Your task to perform on an android device: turn pop-ups on in chrome Image 0: 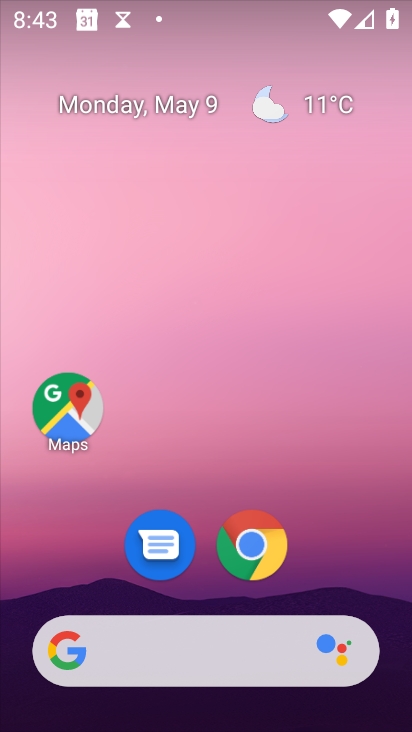
Step 0: click (259, 541)
Your task to perform on an android device: turn pop-ups on in chrome Image 1: 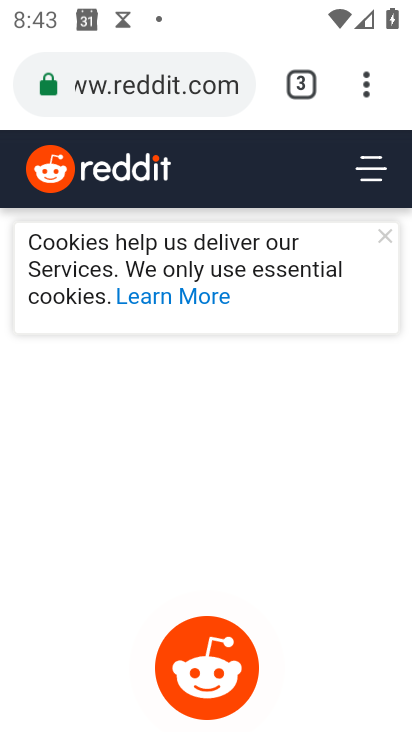
Step 1: click (365, 92)
Your task to perform on an android device: turn pop-ups on in chrome Image 2: 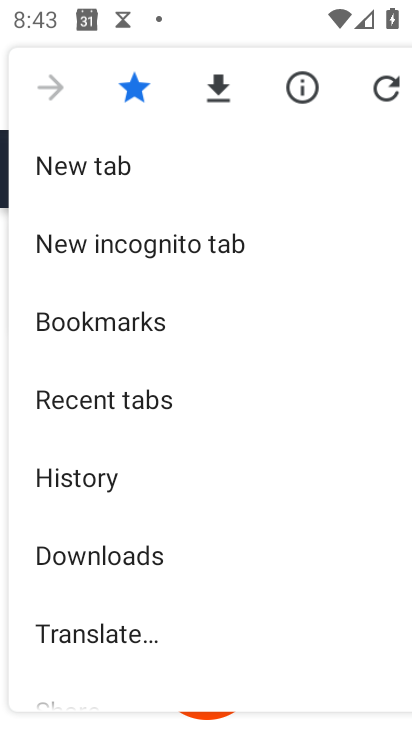
Step 2: drag from (187, 641) to (224, 260)
Your task to perform on an android device: turn pop-ups on in chrome Image 3: 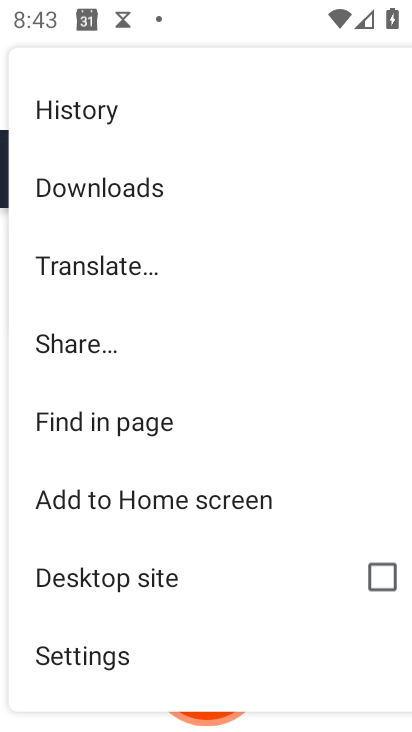
Step 3: click (122, 653)
Your task to perform on an android device: turn pop-ups on in chrome Image 4: 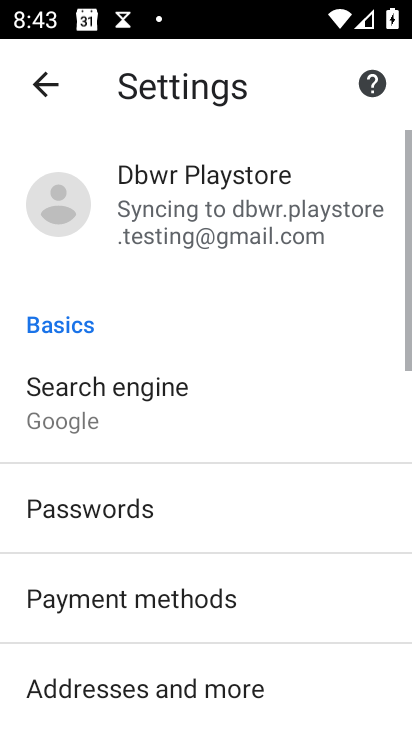
Step 4: drag from (164, 661) to (185, 397)
Your task to perform on an android device: turn pop-ups on in chrome Image 5: 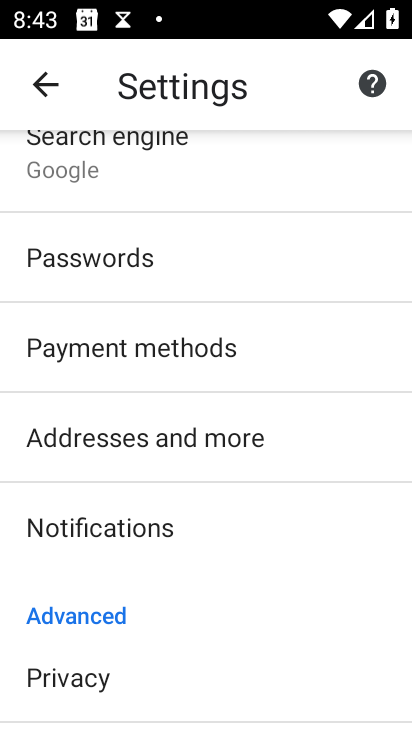
Step 5: drag from (163, 650) to (209, 334)
Your task to perform on an android device: turn pop-ups on in chrome Image 6: 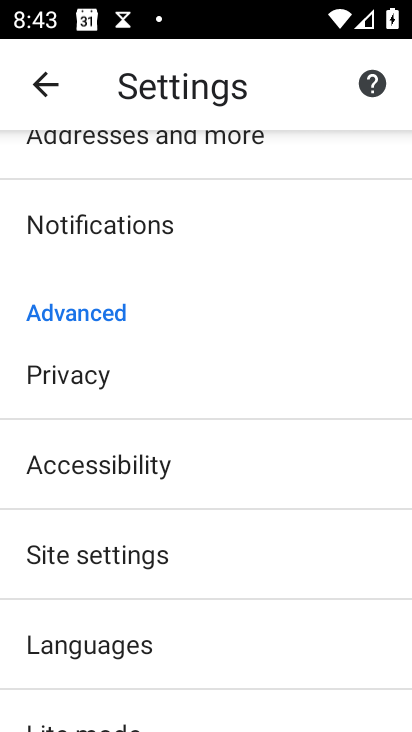
Step 6: click (104, 554)
Your task to perform on an android device: turn pop-ups on in chrome Image 7: 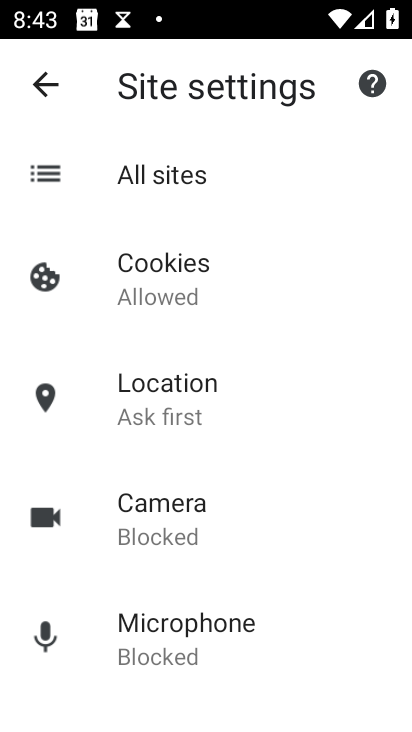
Step 7: drag from (237, 647) to (245, 304)
Your task to perform on an android device: turn pop-ups on in chrome Image 8: 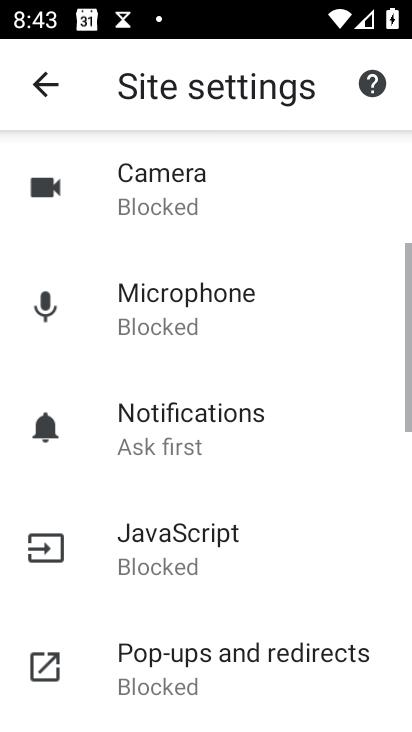
Step 8: click (188, 649)
Your task to perform on an android device: turn pop-ups on in chrome Image 9: 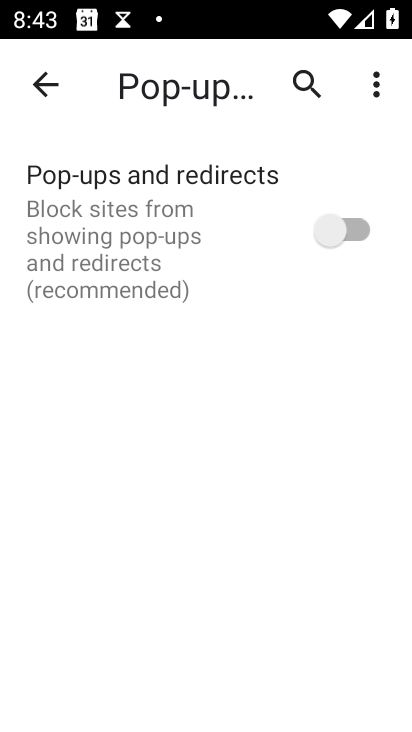
Step 9: click (353, 222)
Your task to perform on an android device: turn pop-ups on in chrome Image 10: 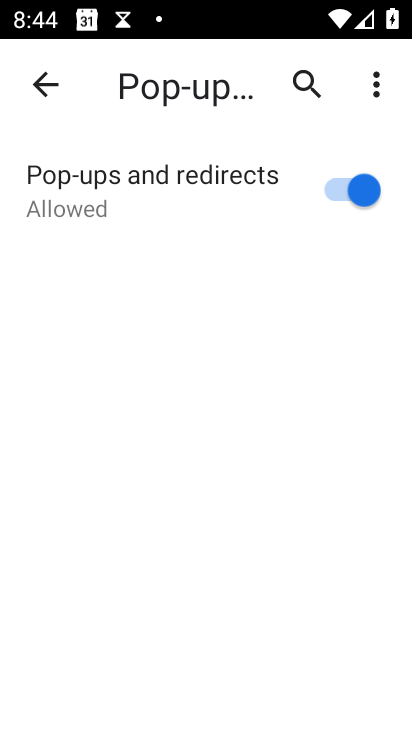
Step 10: task complete